Your task to perform on an android device: change the upload size in google photos Image 0: 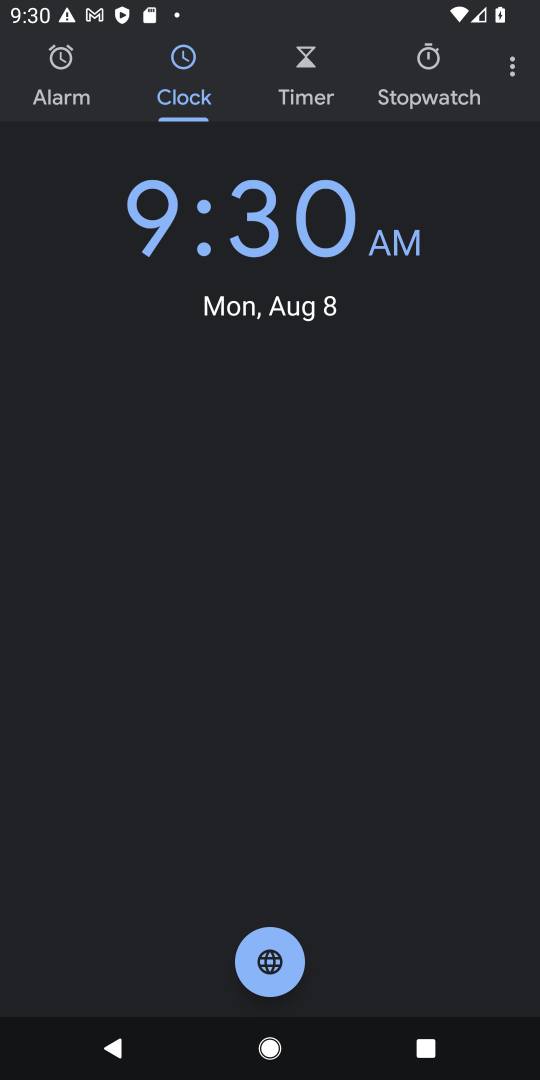
Step 0: press home button
Your task to perform on an android device: change the upload size in google photos Image 1: 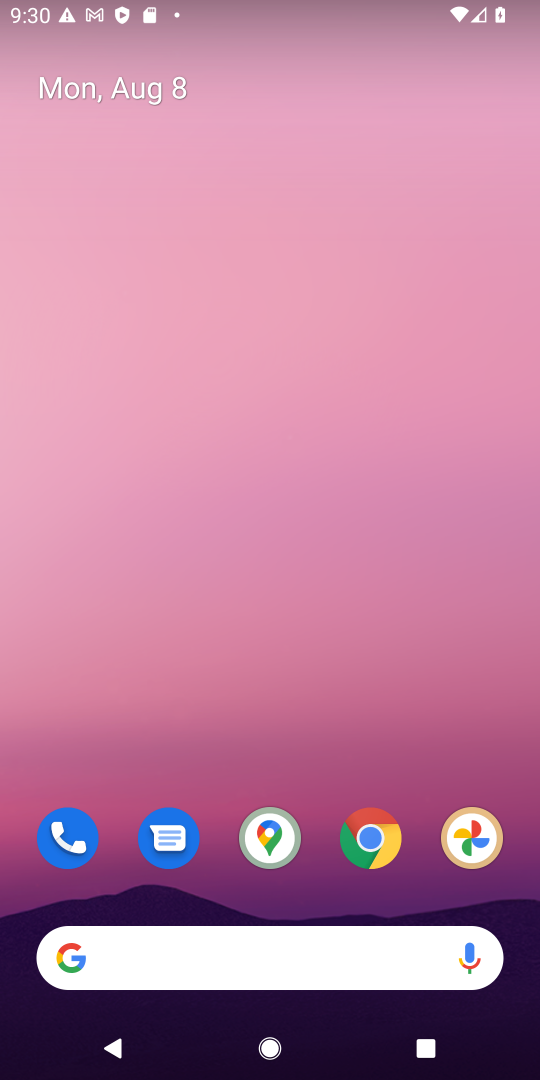
Step 1: drag from (323, 871) to (370, 213)
Your task to perform on an android device: change the upload size in google photos Image 2: 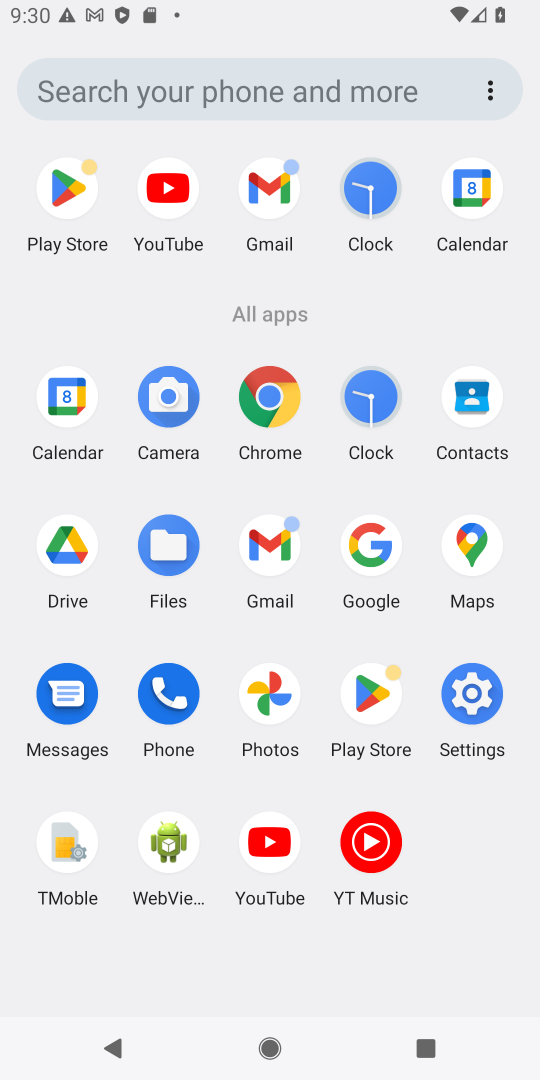
Step 2: click (279, 681)
Your task to perform on an android device: change the upload size in google photos Image 3: 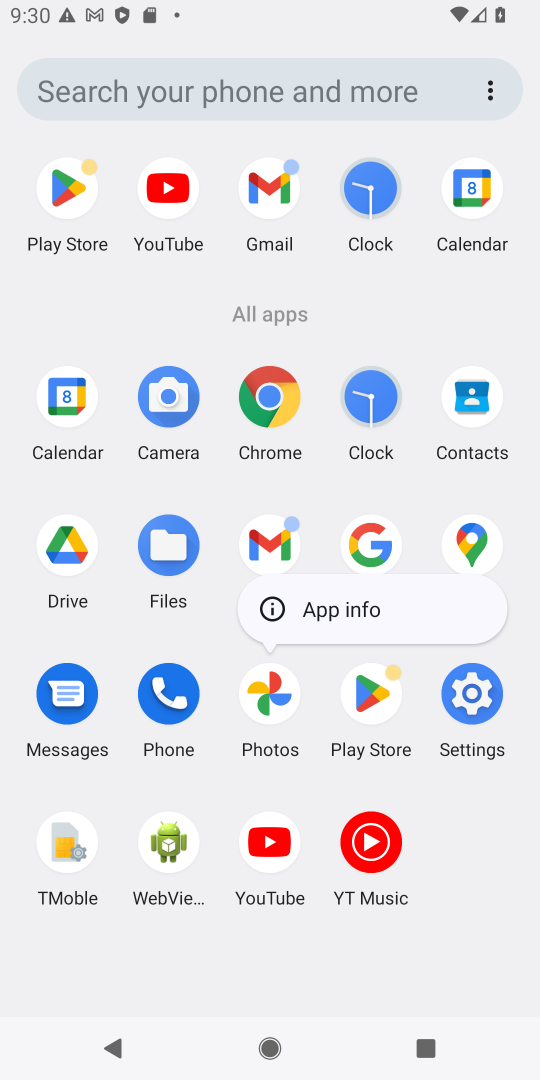
Step 3: click (267, 699)
Your task to perform on an android device: change the upload size in google photos Image 4: 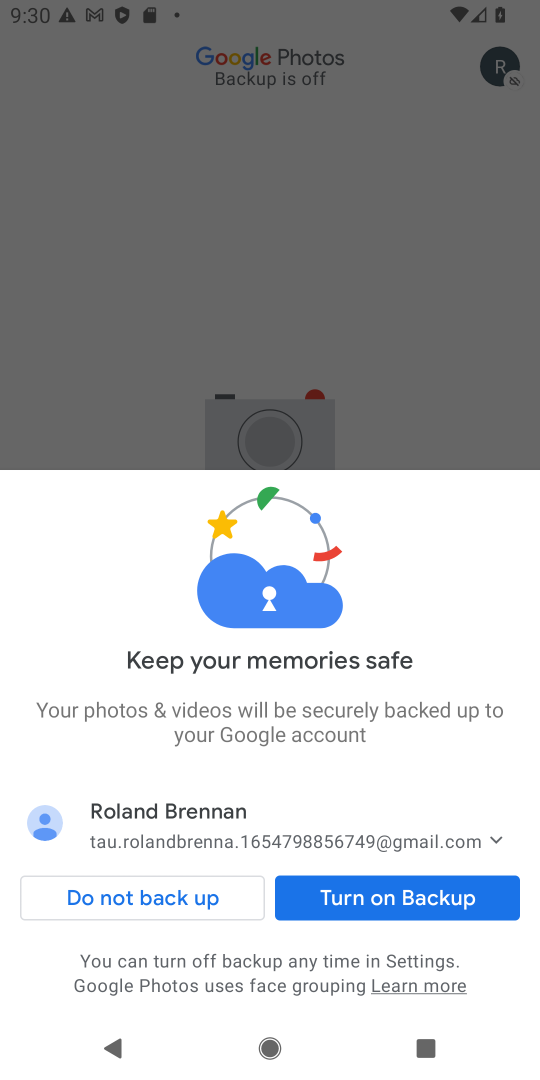
Step 4: click (350, 906)
Your task to perform on an android device: change the upload size in google photos Image 5: 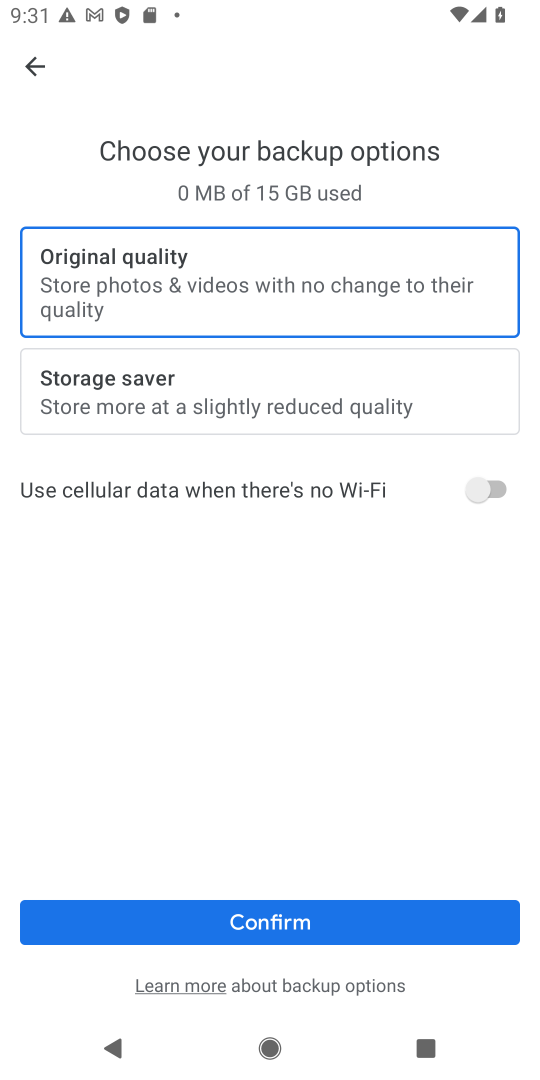
Step 5: click (237, 392)
Your task to perform on an android device: change the upload size in google photos Image 6: 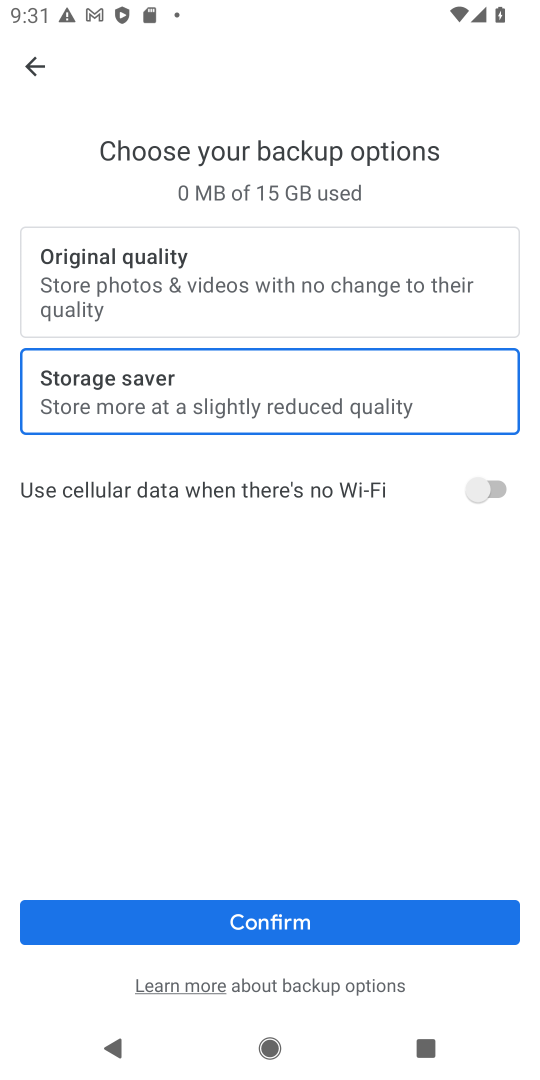
Step 6: click (410, 912)
Your task to perform on an android device: change the upload size in google photos Image 7: 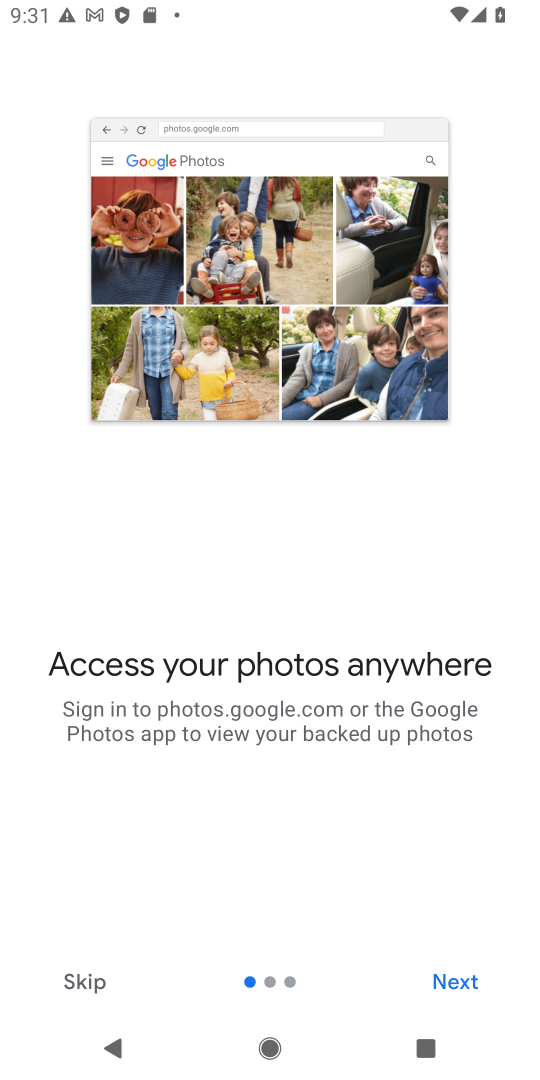
Step 7: task complete